Your task to perform on an android device: Check the news Image 0: 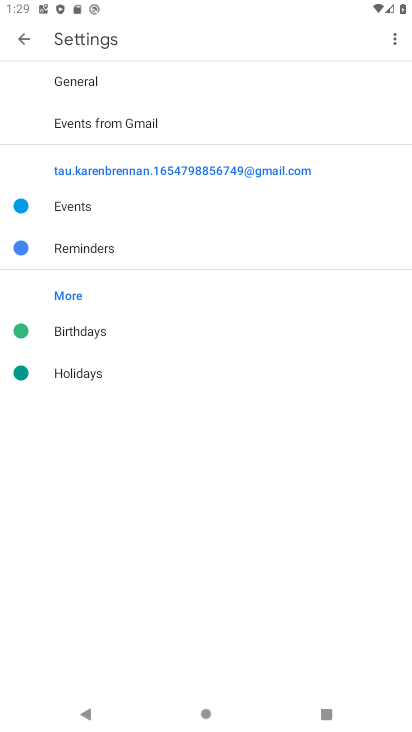
Step 0: press home button
Your task to perform on an android device: Check the news Image 1: 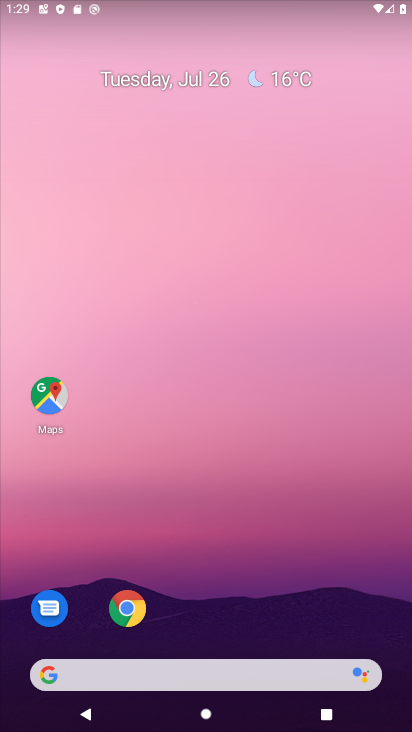
Step 1: click (252, 666)
Your task to perform on an android device: Check the news Image 2: 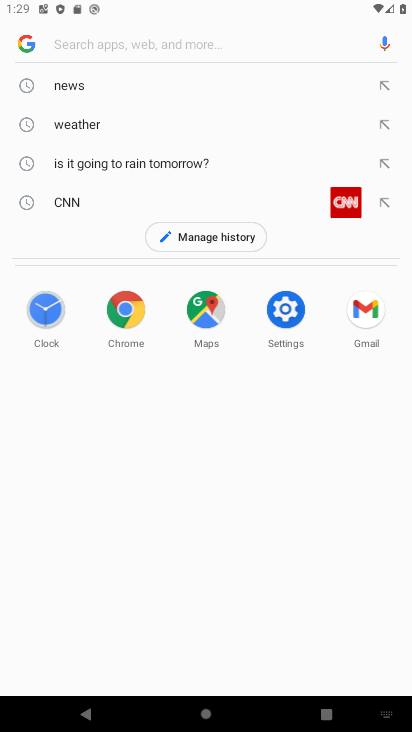
Step 2: click (69, 95)
Your task to perform on an android device: Check the news Image 3: 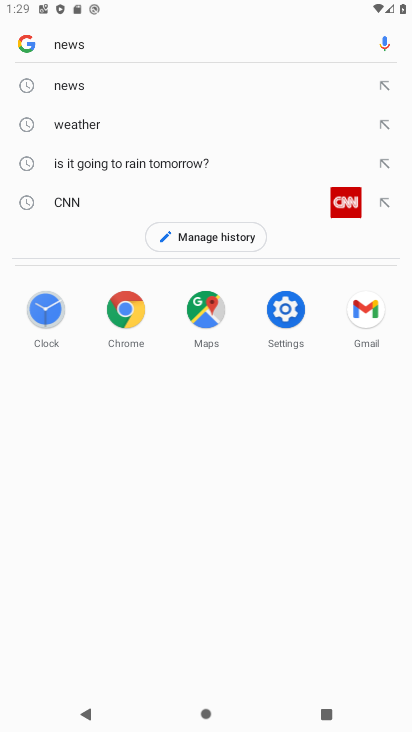
Step 3: task complete